Your task to perform on an android device: check storage Image 0: 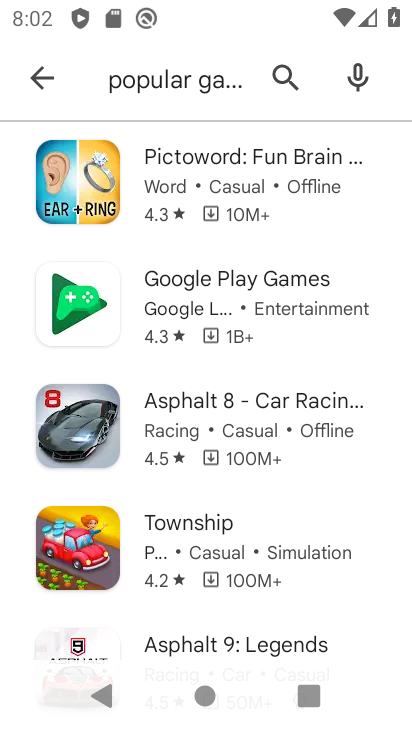
Step 0: press home button
Your task to perform on an android device: check storage Image 1: 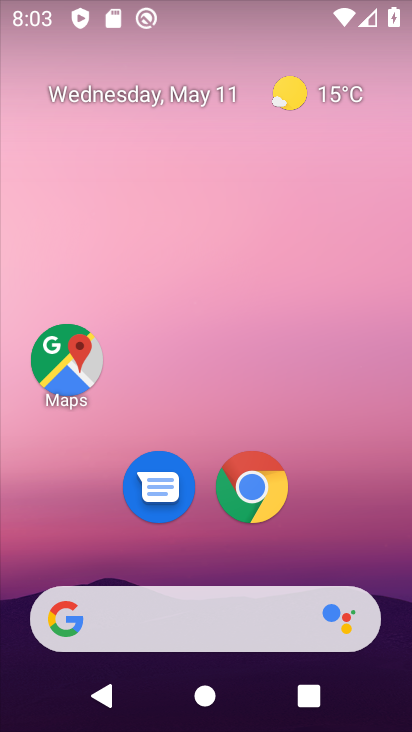
Step 1: drag from (261, 671) to (129, 137)
Your task to perform on an android device: check storage Image 2: 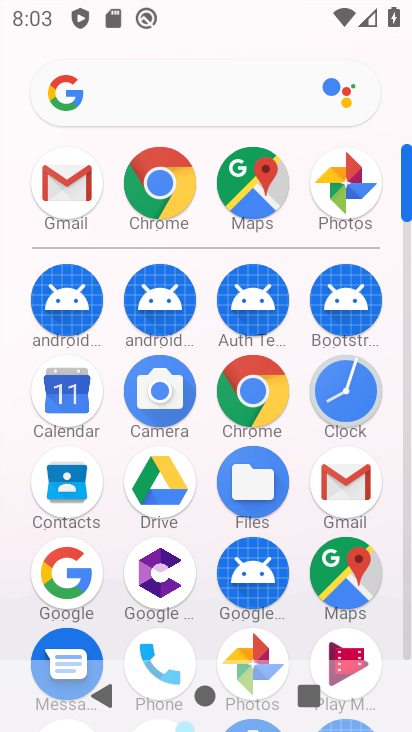
Step 2: drag from (204, 523) to (184, 301)
Your task to perform on an android device: check storage Image 3: 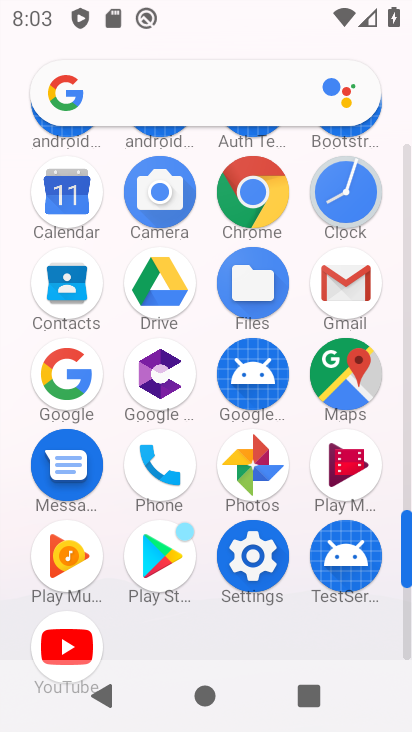
Step 3: click (250, 573)
Your task to perform on an android device: check storage Image 4: 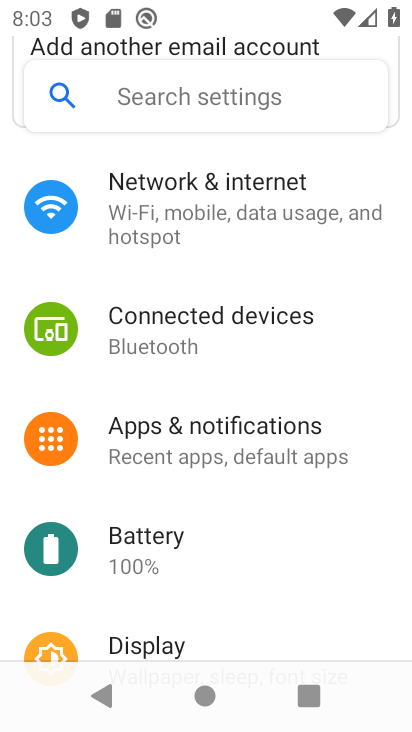
Step 4: click (191, 101)
Your task to perform on an android device: check storage Image 5: 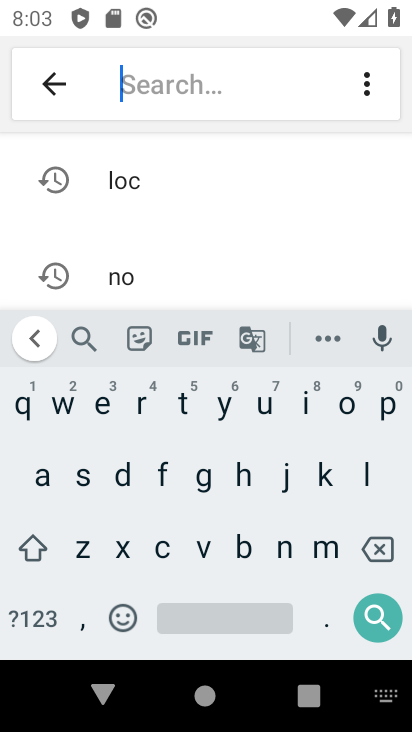
Step 5: click (83, 487)
Your task to perform on an android device: check storage Image 6: 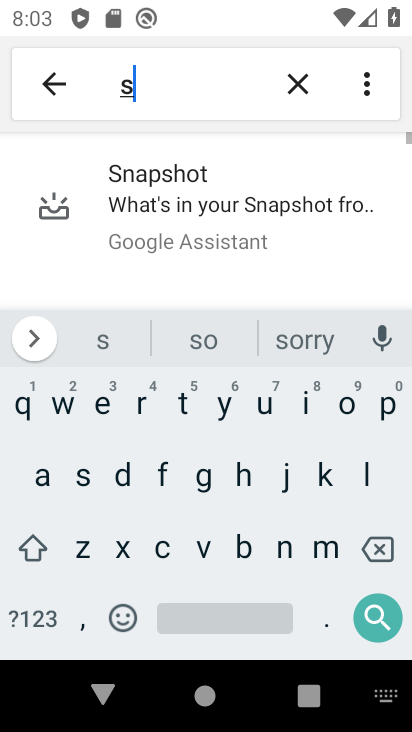
Step 6: click (174, 410)
Your task to perform on an android device: check storage Image 7: 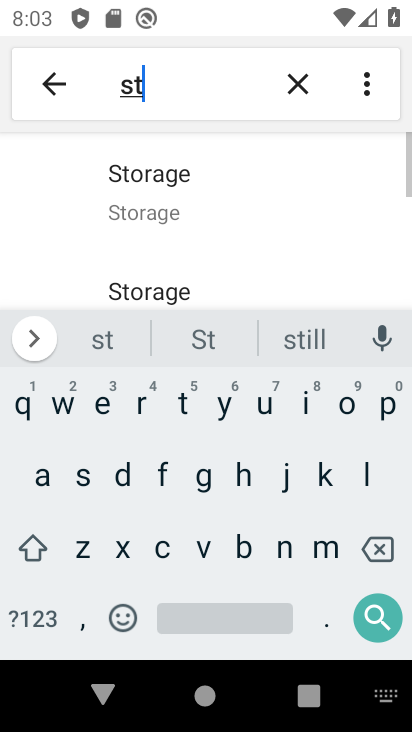
Step 7: click (149, 212)
Your task to perform on an android device: check storage Image 8: 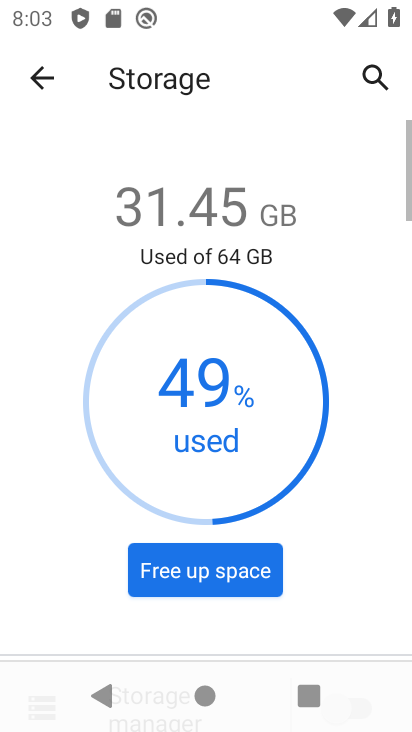
Step 8: task complete